Your task to perform on an android device: check out phone information Image 0: 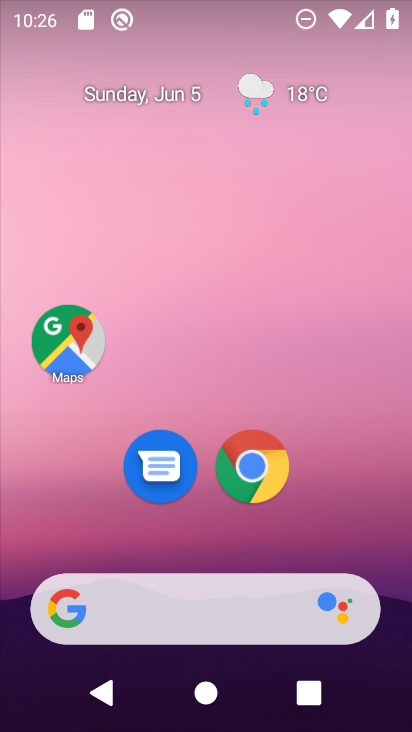
Step 0: drag from (352, 481) to (272, 12)
Your task to perform on an android device: check out phone information Image 1: 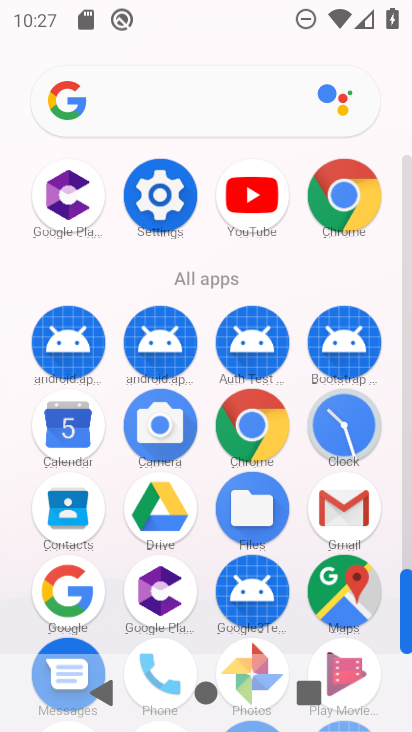
Step 1: drag from (21, 569) to (23, 251)
Your task to perform on an android device: check out phone information Image 2: 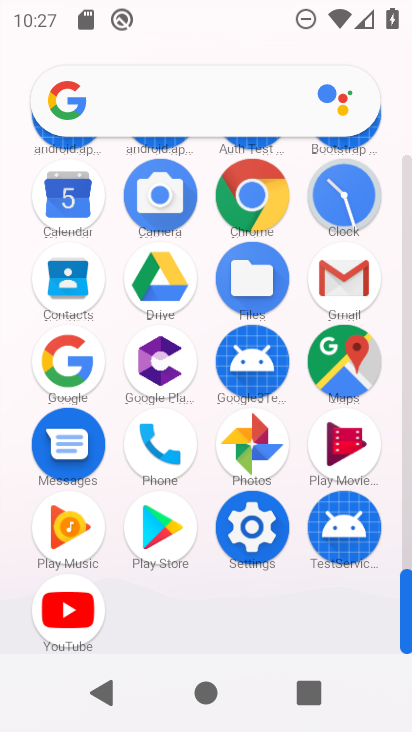
Step 2: click (249, 524)
Your task to perform on an android device: check out phone information Image 3: 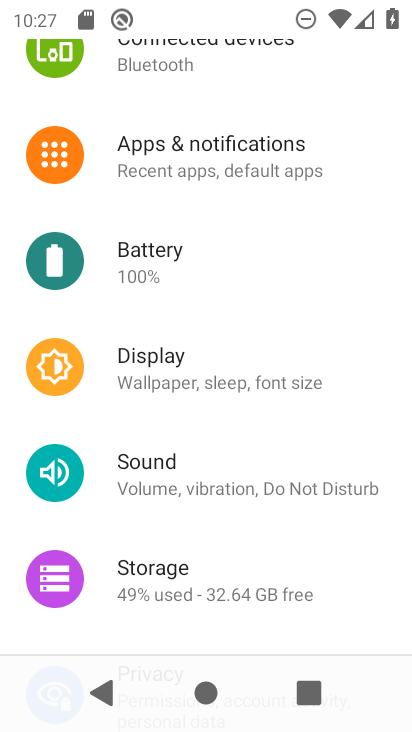
Step 3: drag from (305, 606) to (319, 195)
Your task to perform on an android device: check out phone information Image 4: 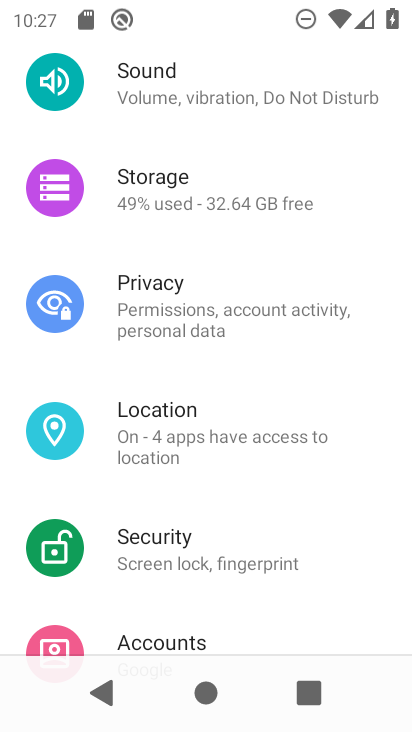
Step 4: drag from (295, 578) to (306, 116)
Your task to perform on an android device: check out phone information Image 5: 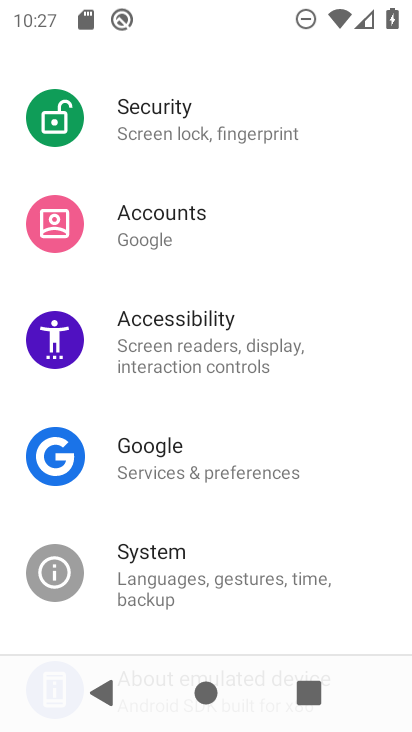
Step 5: drag from (273, 555) to (265, 163)
Your task to perform on an android device: check out phone information Image 6: 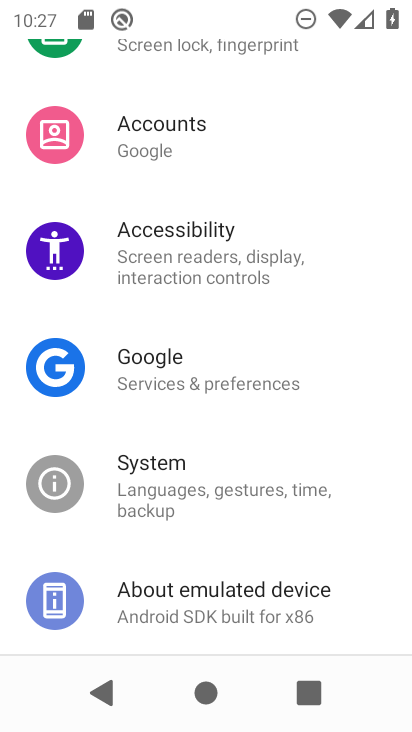
Step 6: click (214, 591)
Your task to perform on an android device: check out phone information Image 7: 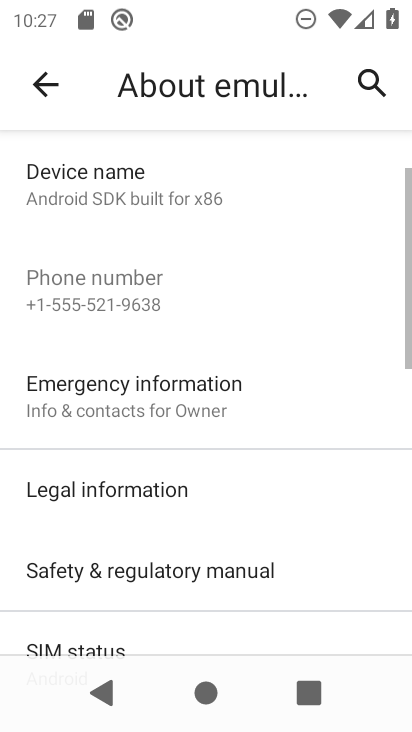
Step 7: task complete